Your task to perform on an android device: add a contact Image 0: 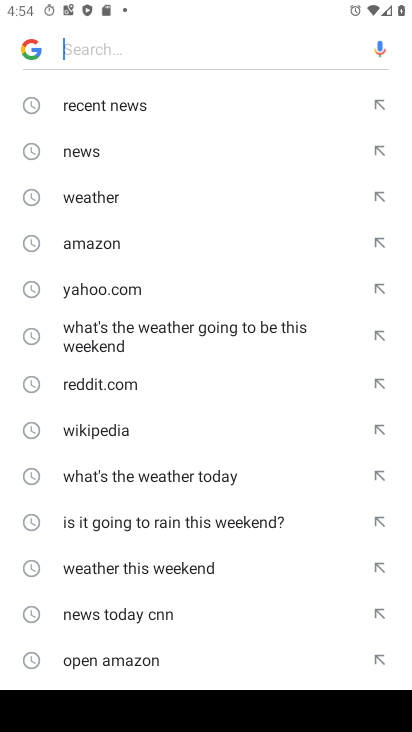
Step 0: press home button
Your task to perform on an android device: add a contact Image 1: 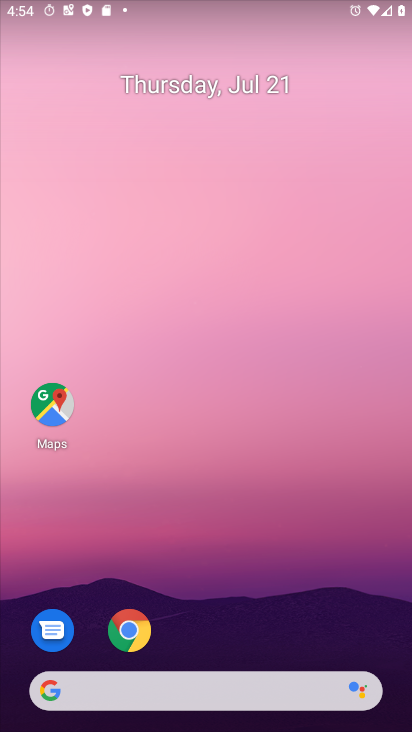
Step 1: drag from (196, 696) to (348, 114)
Your task to perform on an android device: add a contact Image 2: 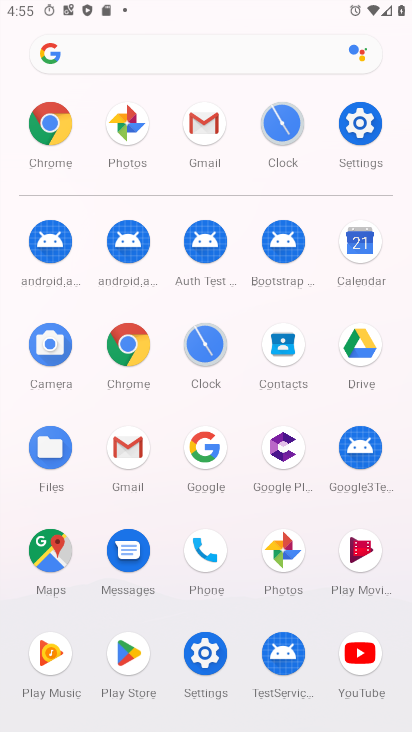
Step 2: click (284, 345)
Your task to perform on an android device: add a contact Image 3: 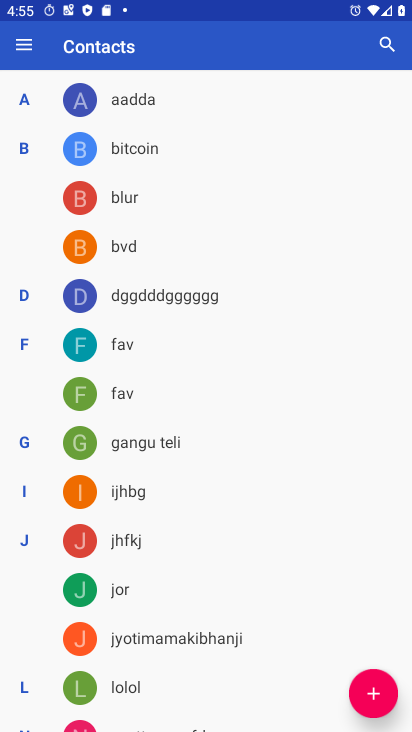
Step 3: click (372, 693)
Your task to perform on an android device: add a contact Image 4: 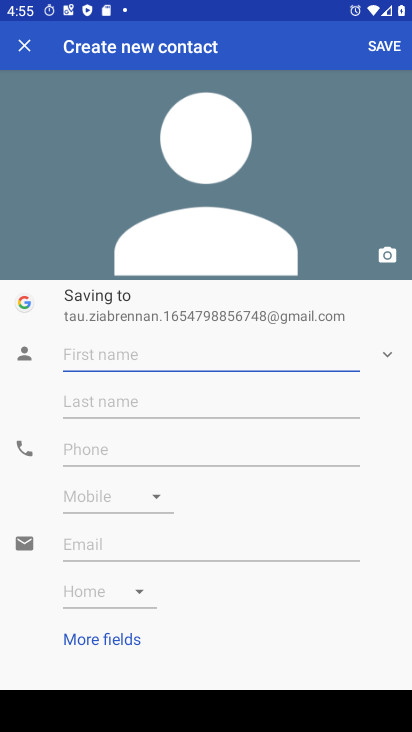
Step 4: type "Vijay"
Your task to perform on an android device: add a contact Image 5: 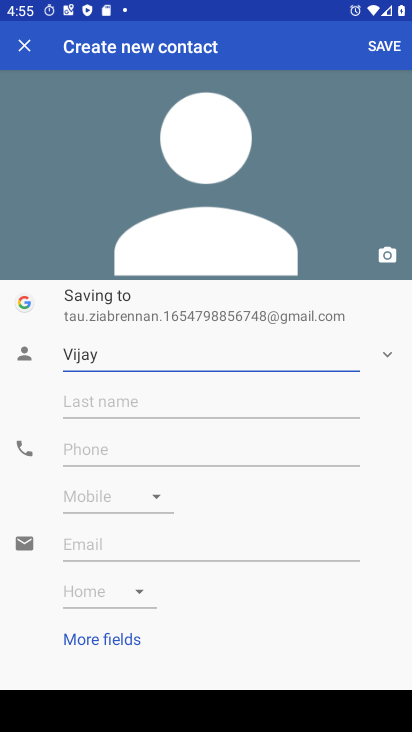
Step 5: click (273, 400)
Your task to perform on an android device: add a contact Image 6: 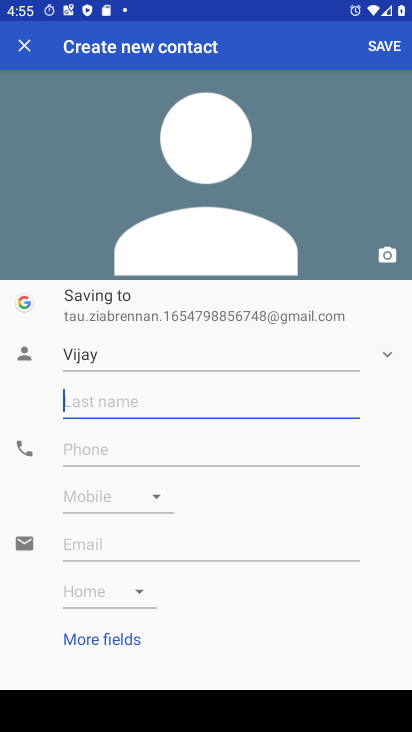
Step 6: type "Thalpathy"
Your task to perform on an android device: add a contact Image 7: 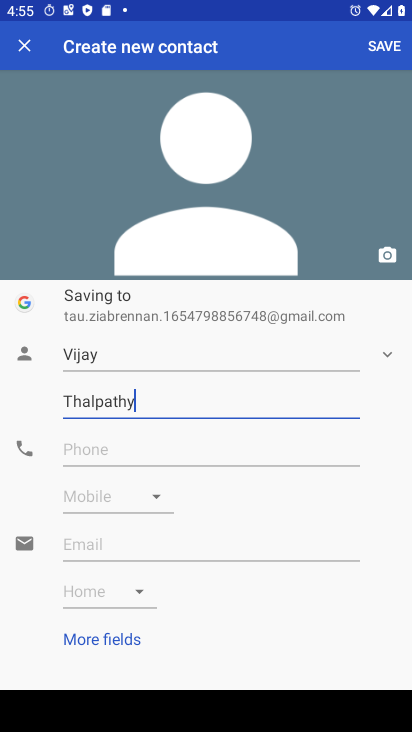
Step 7: click (293, 456)
Your task to perform on an android device: add a contact Image 8: 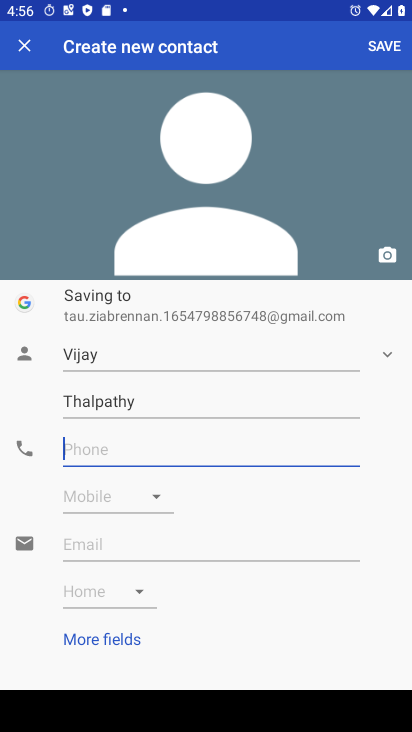
Step 8: type "09827346427"
Your task to perform on an android device: add a contact Image 9: 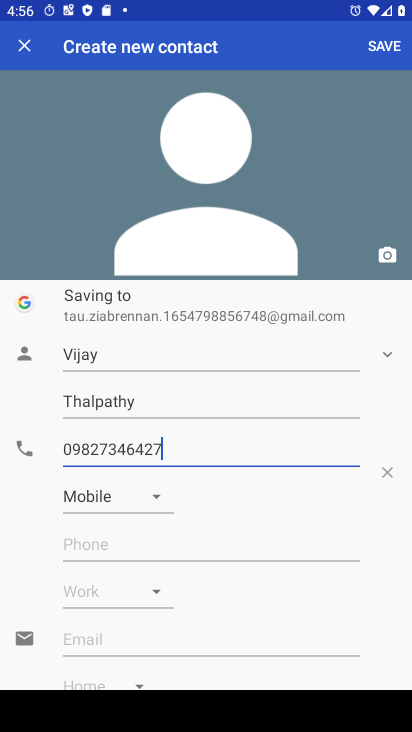
Step 9: click (377, 50)
Your task to perform on an android device: add a contact Image 10: 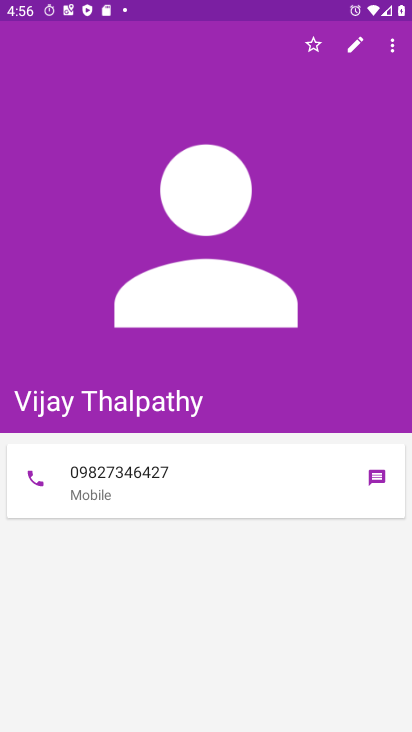
Step 10: task complete